Your task to perform on an android device: Go to battery settings Image 0: 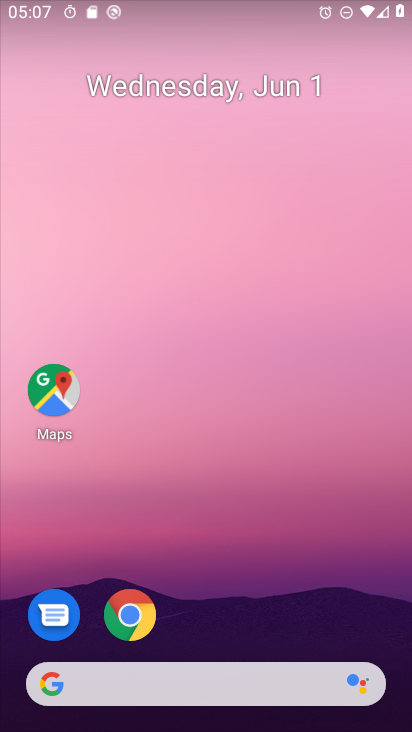
Step 0: drag from (147, 618) to (147, 1)
Your task to perform on an android device: Go to battery settings Image 1: 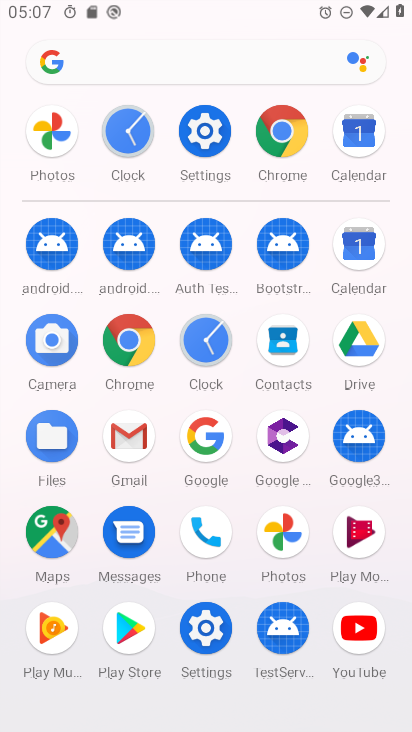
Step 1: click (205, 136)
Your task to perform on an android device: Go to battery settings Image 2: 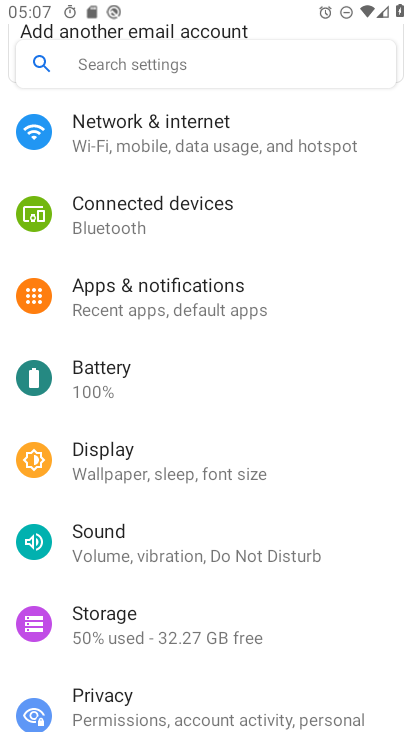
Step 2: click (124, 372)
Your task to perform on an android device: Go to battery settings Image 3: 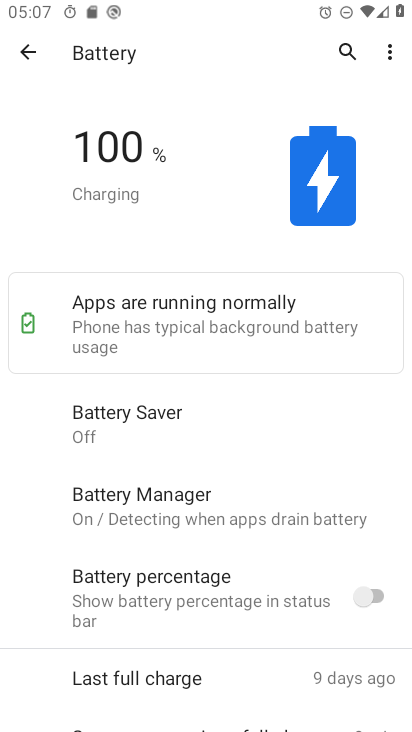
Step 3: task complete